Your task to perform on an android device: turn notification dots off Image 0: 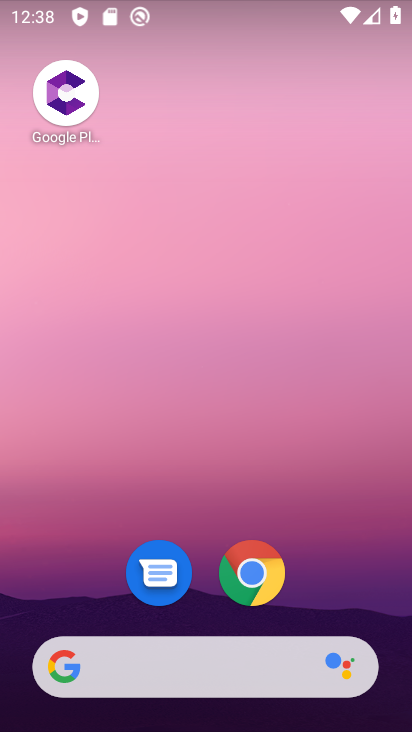
Step 0: drag from (343, 574) to (149, 107)
Your task to perform on an android device: turn notification dots off Image 1: 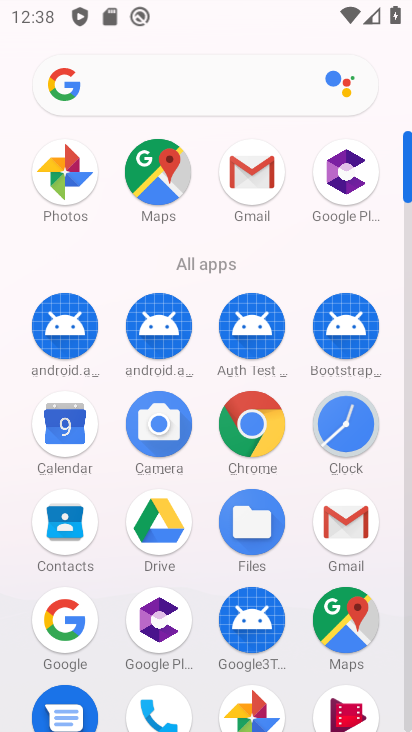
Step 1: drag from (256, 619) to (246, 296)
Your task to perform on an android device: turn notification dots off Image 2: 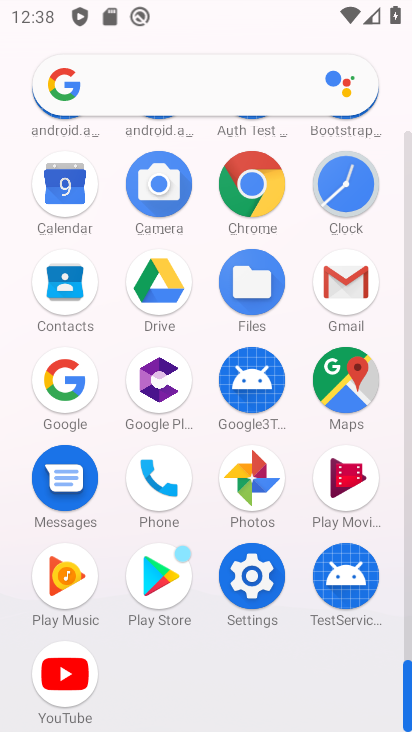
Step 2: click (251, 605)
Your task to perform on an android device: turn notification dots off Image 3: 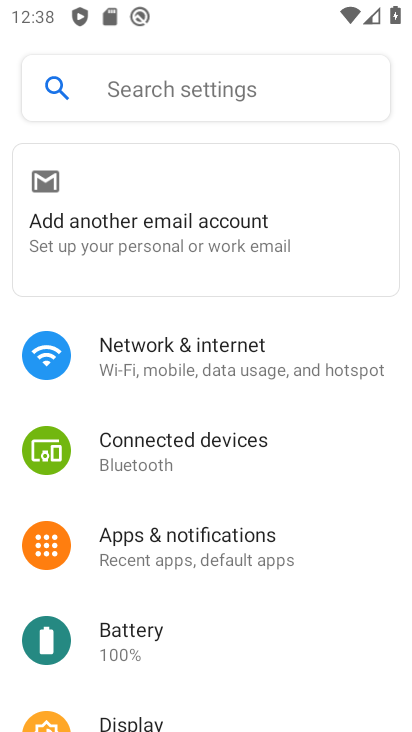
Step 3: click (172, 545)
Your task to perform on an android device: turn notification dots off Image 4: 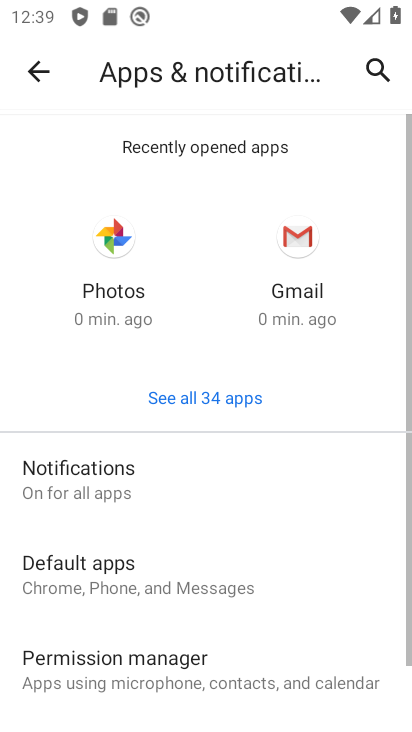
Step 4: click (108, 494)
Your task to perform on an android device: turn notification dots off Image 5: 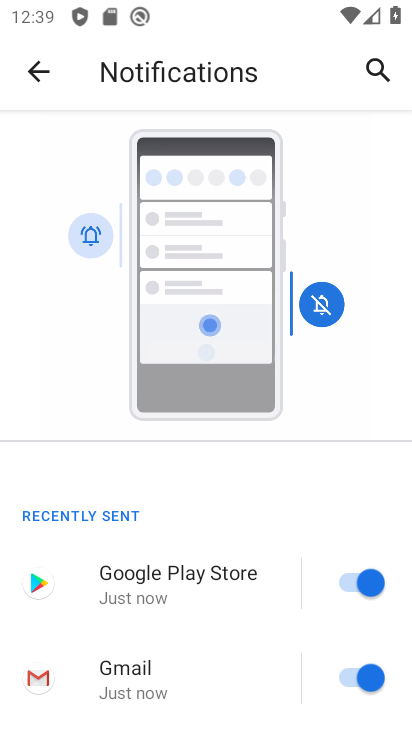
Step 5: drag from (183, 574) to (142, 161)
Your task to perform on an android device: turn notification dots off Image 6: 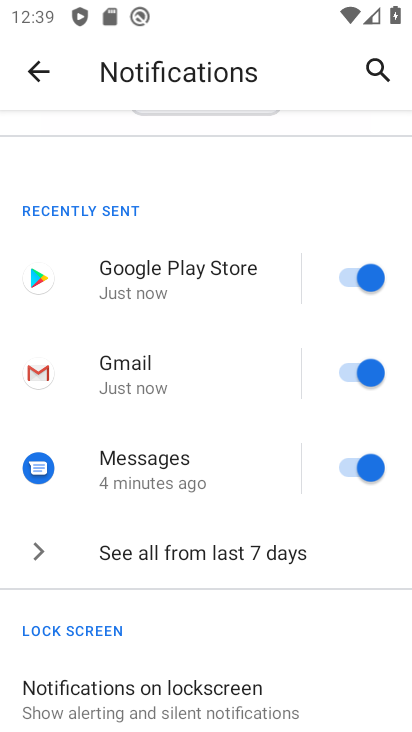
Step 6: drag from (184, 627) to (209, 421)
Your task to perform on an android device: turn notification dots off Image 7: 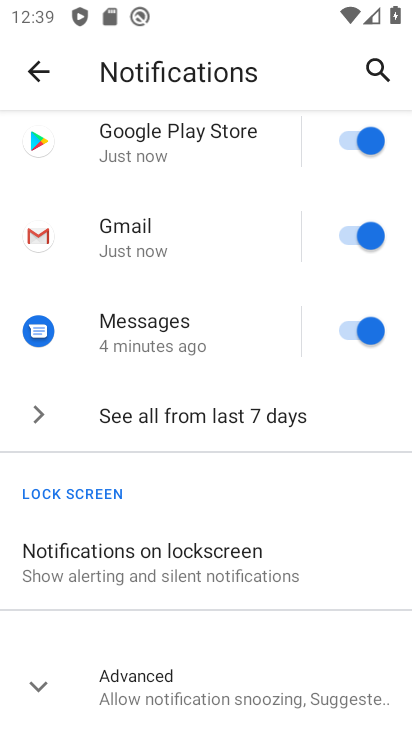
Step 7: click (166, 693)
Your task to perform on an android device: turn notification dots off Image 8: 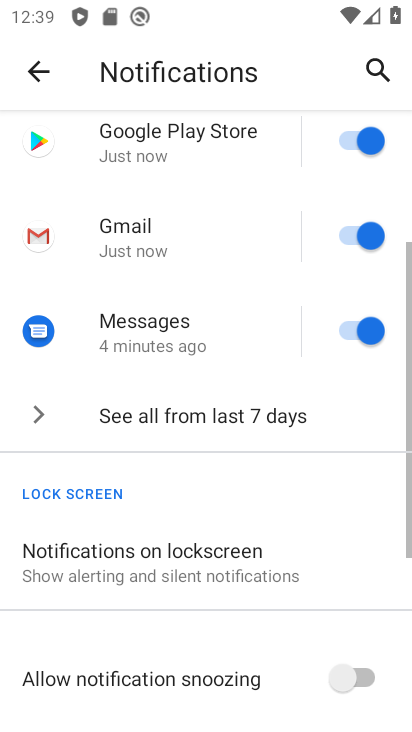
Step 8: drag from (170, 681) to (174, 273)
Your task to perform on an android device: turn notification dots off Image 9: 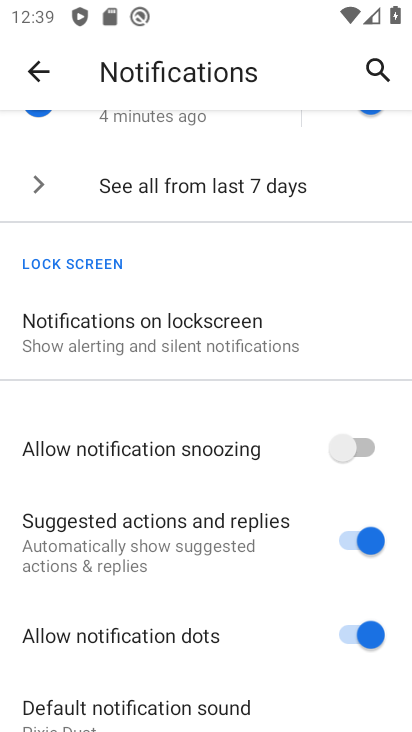
Step 9: click (370, 638)
Your task to perform on an android device: turn notification dots off Image 10: 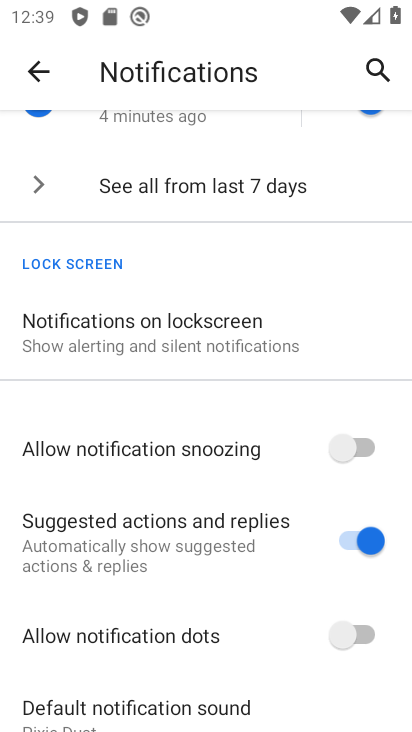
Step 10: task complete